Your task to perform on an android device: Play the last video I watched on Youtube Image 0: 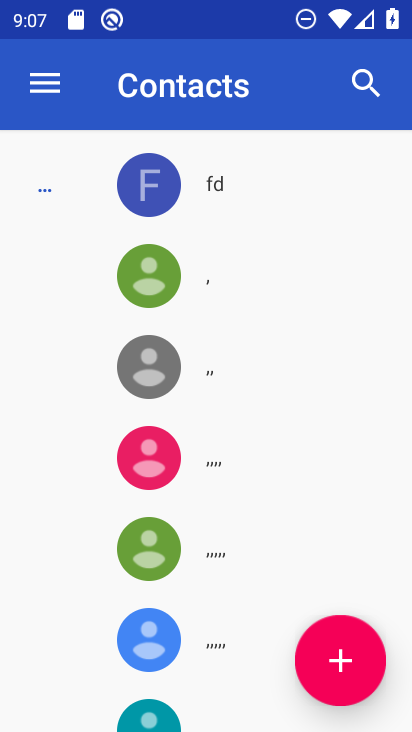
Step 0: press home button
Your task to perform on an android device: Play the last video I watched on Youtube Image 1: 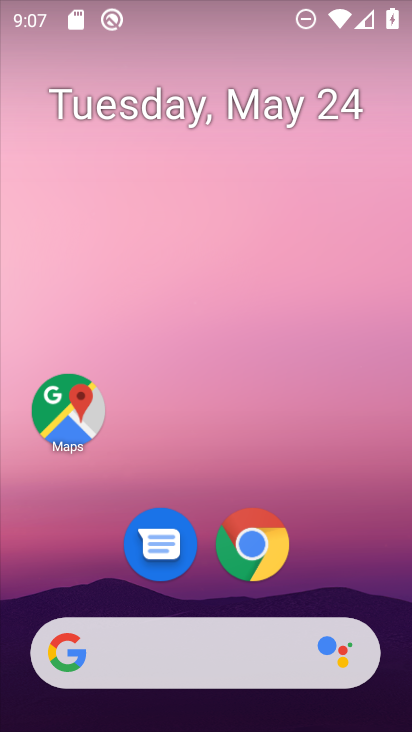
Step 1: drag from (375, 592) to (333, 56)
Your task to perform on an android device: Play the last video I watched on Youtube Image 2: 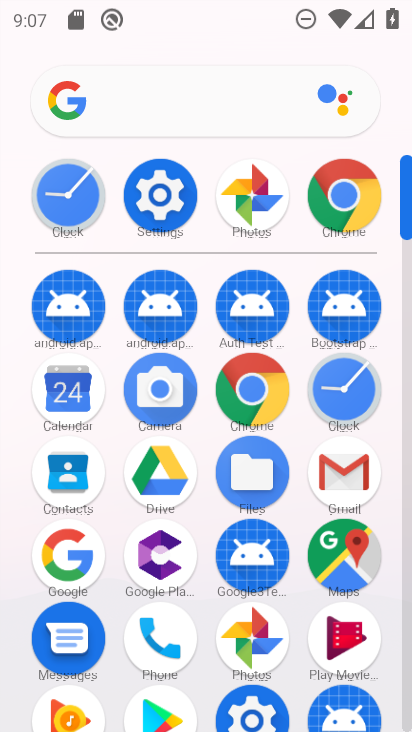
Step 2: click (410, 706)
Your task to perform on an android device: Play the last video I watched on Youtube Image 3: 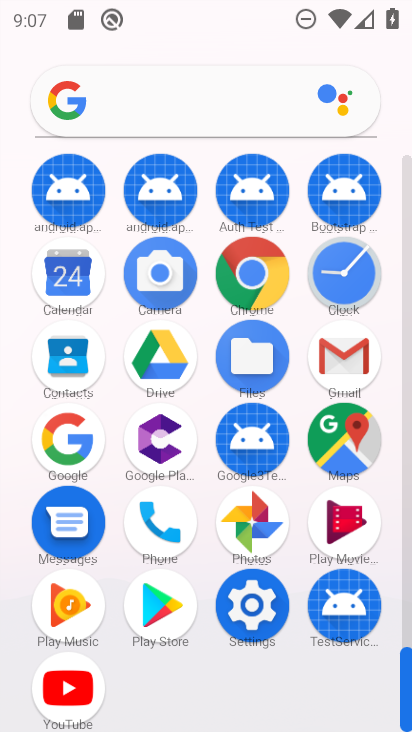
Step 3: click (69, 690)
Your task to perform on an android device: Play the last video I watched on Youtube Image 4: 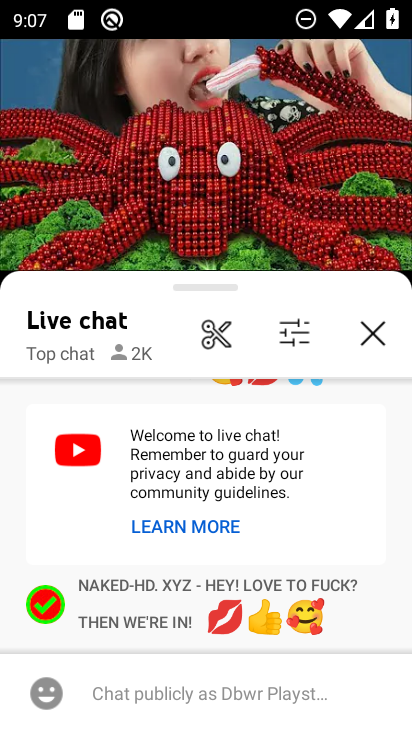
Step 4: task complete